Your task to perform on an android device: Go to settings Image 0: 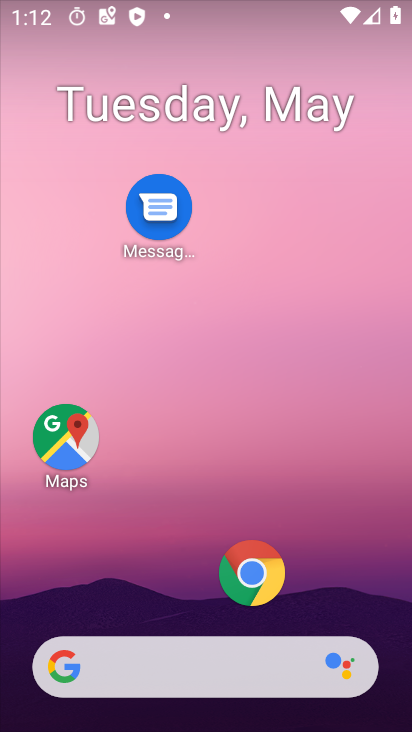
Step 0: drag from (162, 581) to (303, 24)
Your task to perform on an android device: Go to settings Image 1: 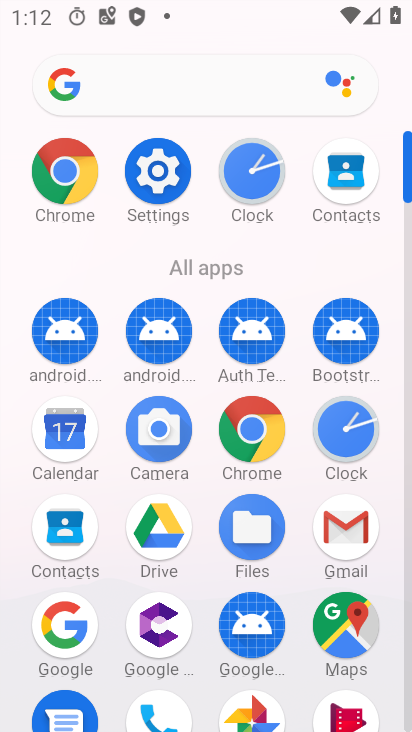
Step 1: click (180, 179)
Your task to perform on an android device: Go to settings Image 2: 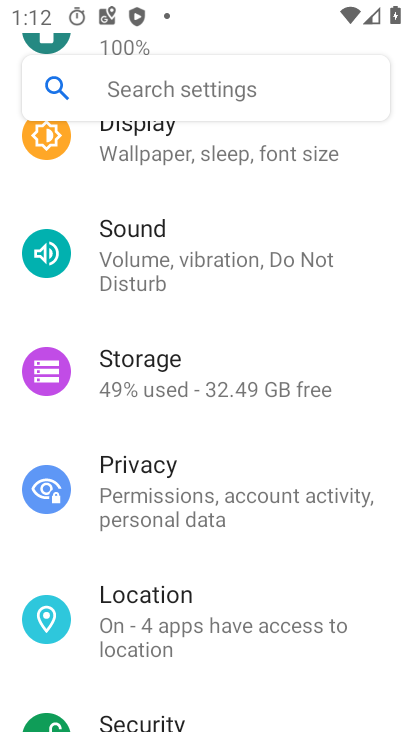
Step 2: task complete